Your task to perform on an android device: turn off notifications in google photos Image 0: 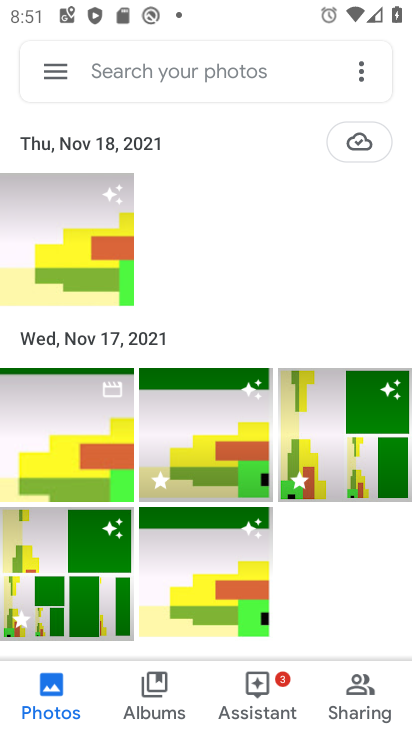
Step 0: press home button
Your task to perform on an android device: turn off notifications in google photos Image 1: 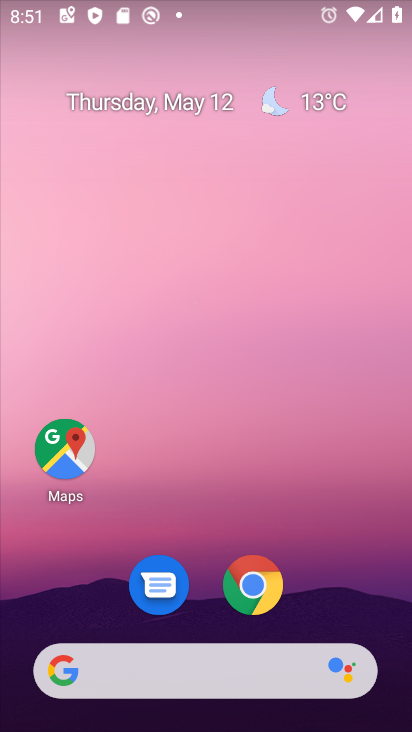
Step 1: drag from (247, 498) to (225, 52)
Your task to perform on an android device: turn off notifications in google photos Image 2: 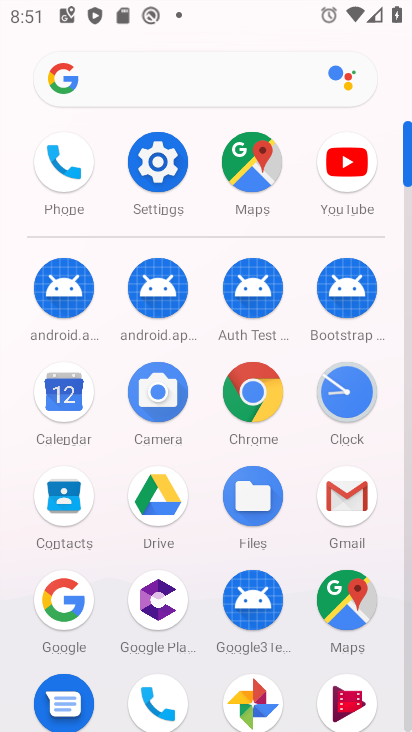
Step 2: click (168, 160)
Your task to perform on an android device: turn off notifications in google photos Image 3: 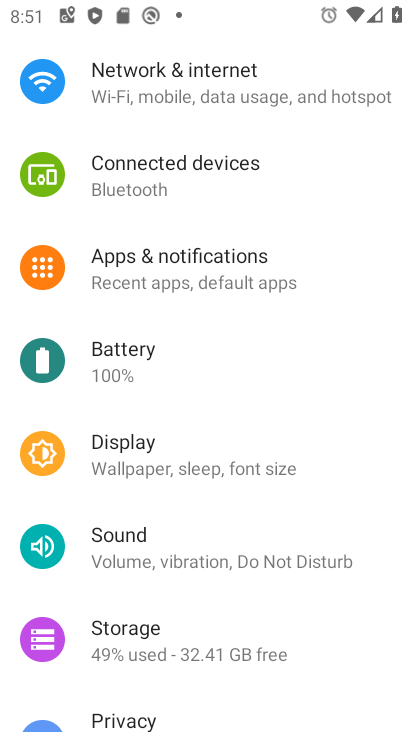
Step 3: click (191, 260)
Your task to perform on an android device: turn off notifications in google photos Image 4: 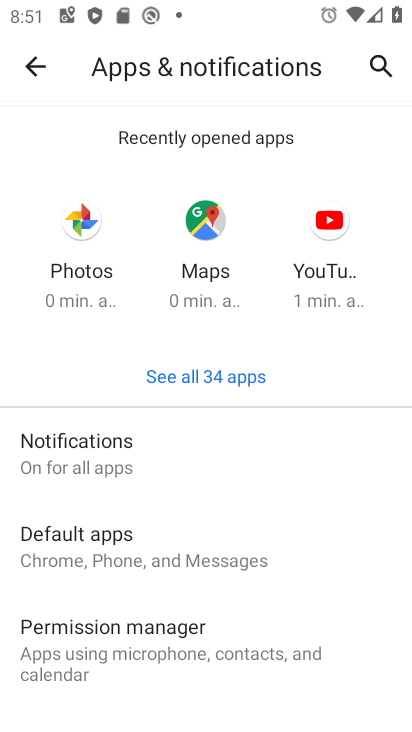
Step 4: click (82, 235)
Your task to perform on an android device: turn off notifications in google photos Image 5: 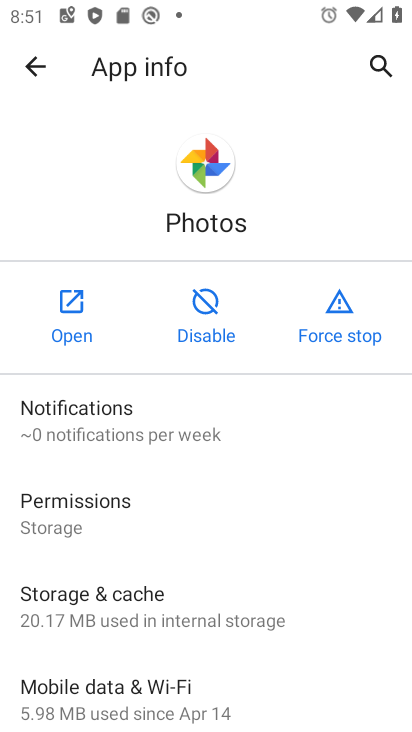
Step 5: click (171, 416)
Your task to perform on an android device: turn off notifications in google photos Image 6: 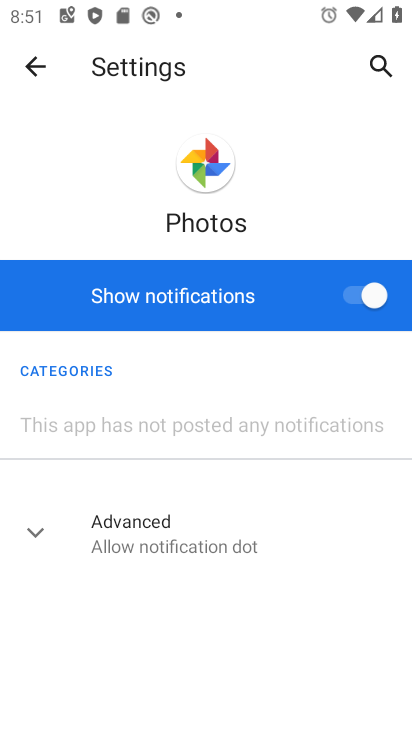
Step 6: click (359, 295)
Your task to perform on an android device: turn off notifications in google photos Image 7: 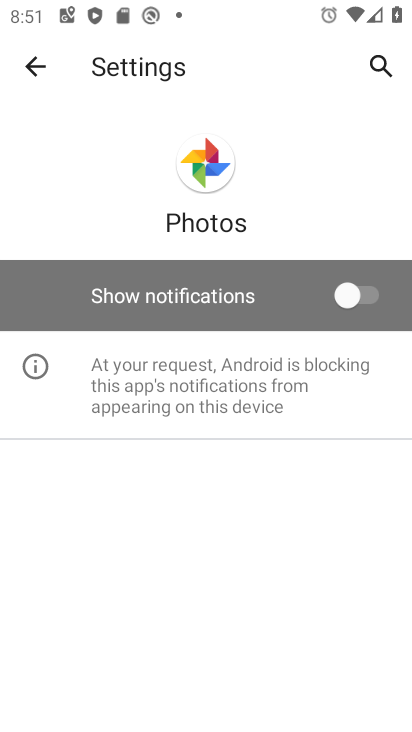
Step 7: task complete